Your task to perform on an android device: change the clock display to analog Image 0: 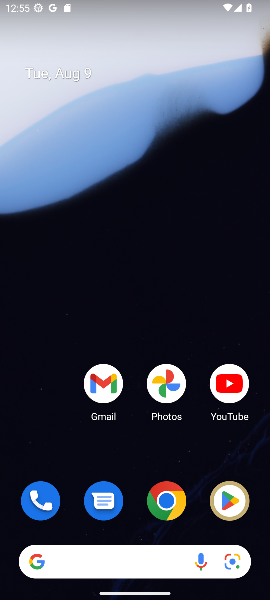
Step 0: drag from (126, 460) to (126, 200)
Your task to perform on an android device: change the clock display to analog Image 1: 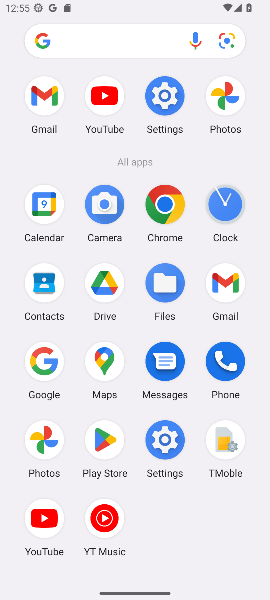
Step 1: click (235, 203)
Your task to perform on an android device: change the clock display to analog Image 2: 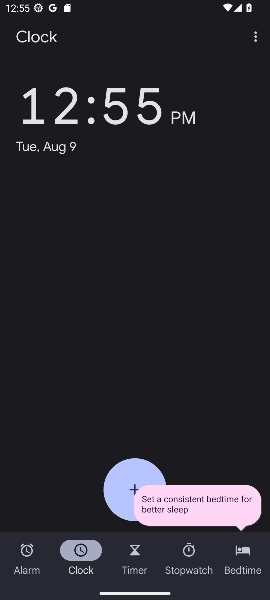
Step 2: click (253, 40)
Your task to perform on an android device: change the clock display to analog Image 3: 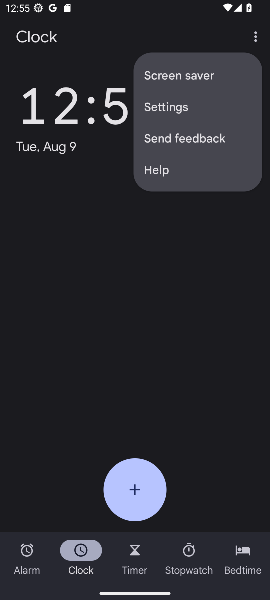
Step 3: click (182, 105)
Your task to perform on an android device: change the clock display to analog Image 4: 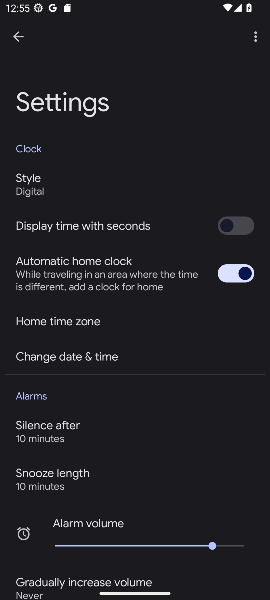
Step 4: click (43, 177)
Your task to perform on an android device: change the clock display to analog Image 5: 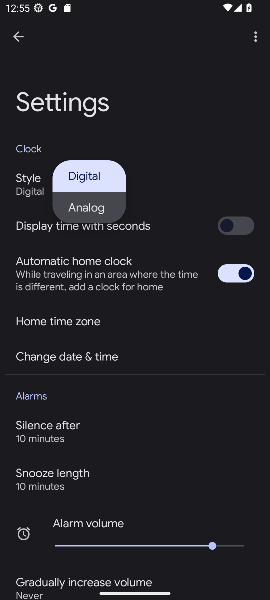
Step 5: click (75, 207)
Your task to perform on an android device: change the clock display to analog Image 6: 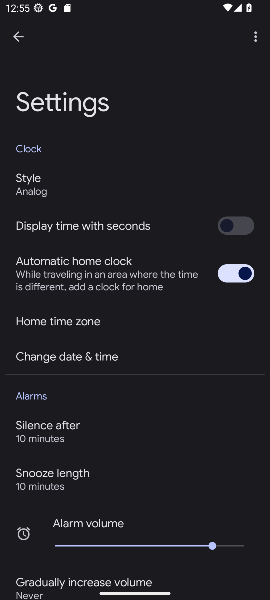
Step 6: task complete